Your task to perform on an android device: show emergency info Image 0: 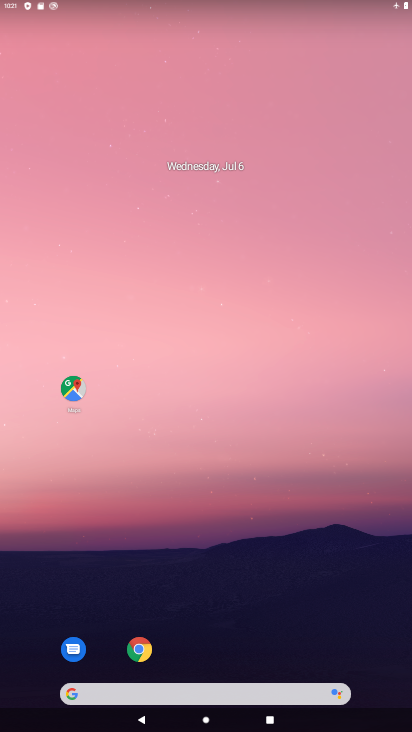
Step 0: drag from (373, 716) to (341, 138)
Your task to perform on an android device: show emergency info Image 1: 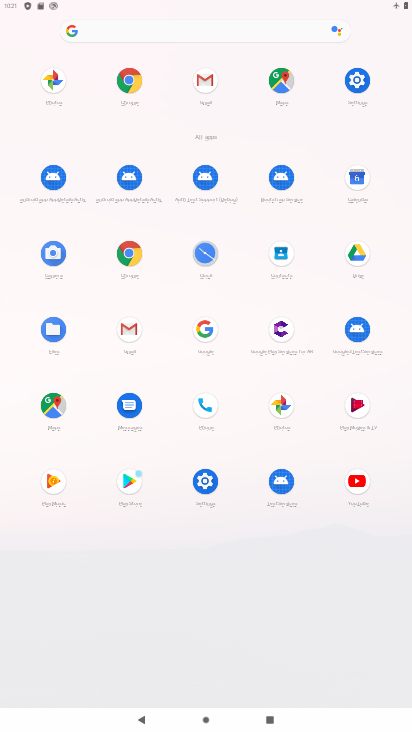
Step 1: click (197, 488)
Your task to perform on an android device: show emergency info Image 2: 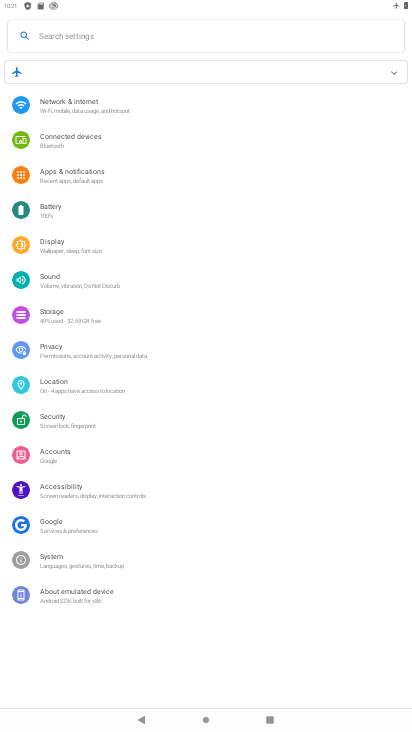
Step 2: click (73, 593)
Your task to perform on an android device: show emergency info Image 3: 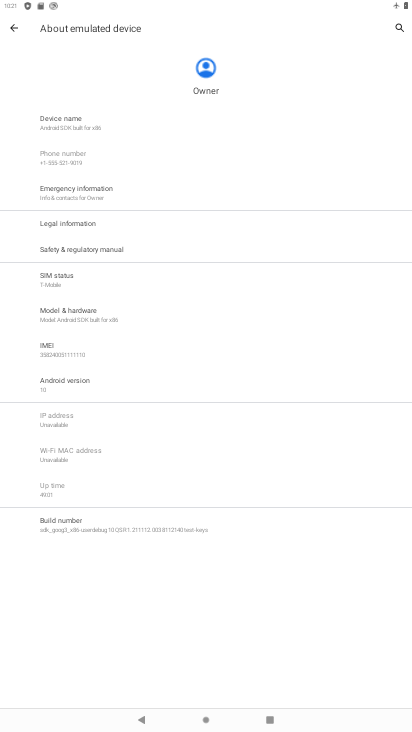
Step 3: click (87, 189)
Your task to perform on an android device: show emergency info Image 4: 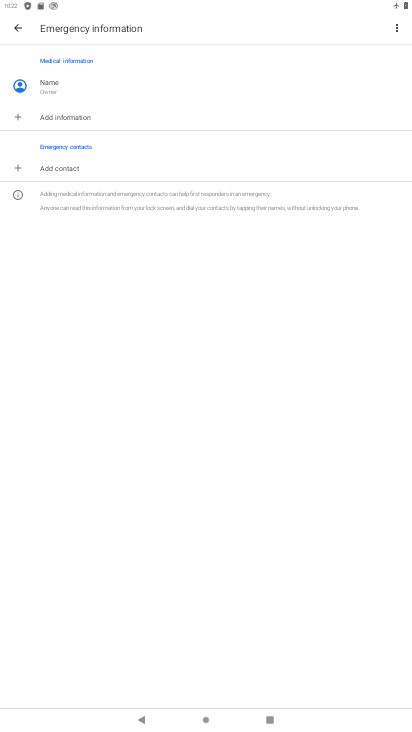
Step 4: task complete